Your task to perform on an android device: Open Google Image 0: 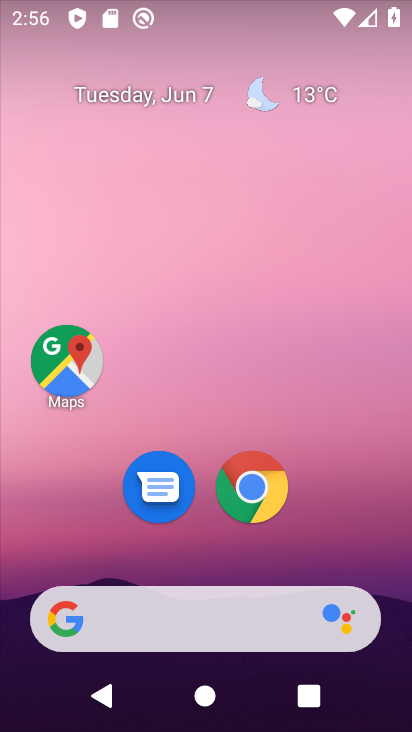
Step 0: drag from (93, 266) to (74, 122)
Your task to perform on an android device: Open Google Image 1: 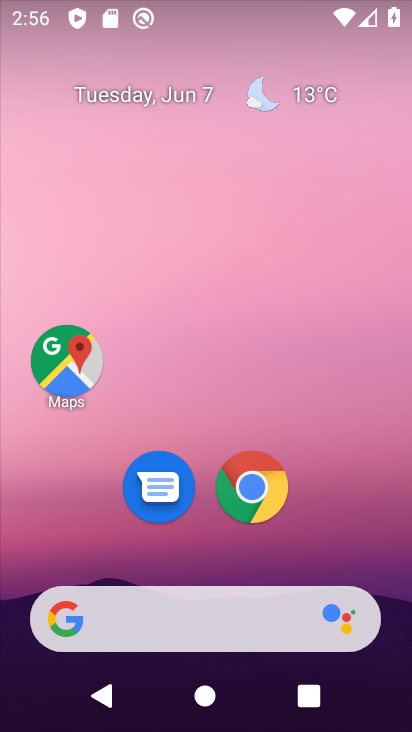
Step 1: drag from (273, 582) to (167, 92)
Your task to perform on an android device: Open Google Image 2: 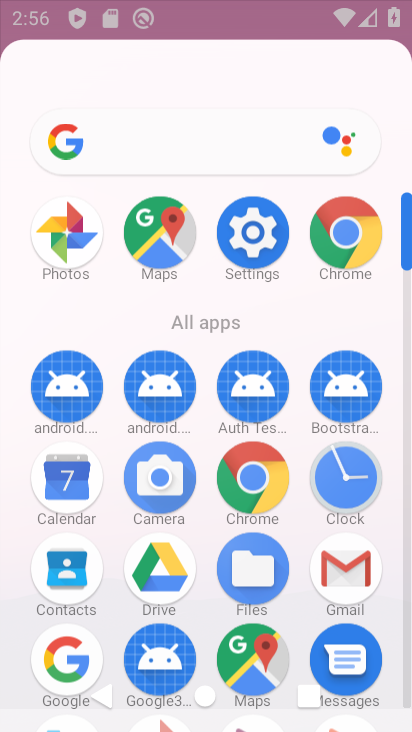
Step 2: drag from (233, 498) to (182, 135)
Your task to perform on an android device: Open Google Image 3: 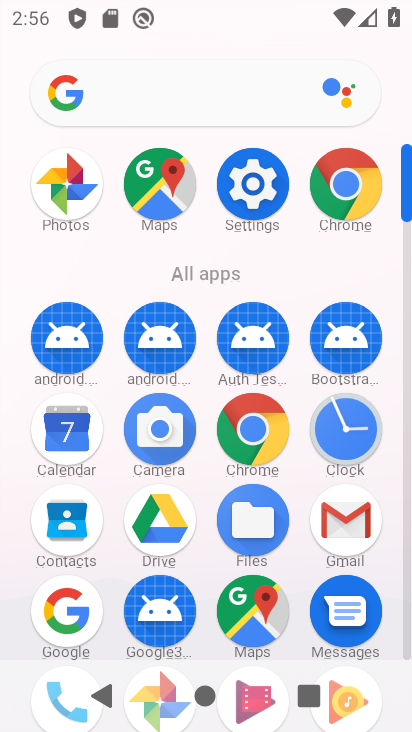
Step 3: drag from (183, 575) to (141, 162)
Your task to perform on an android device: Open Google Image 4: 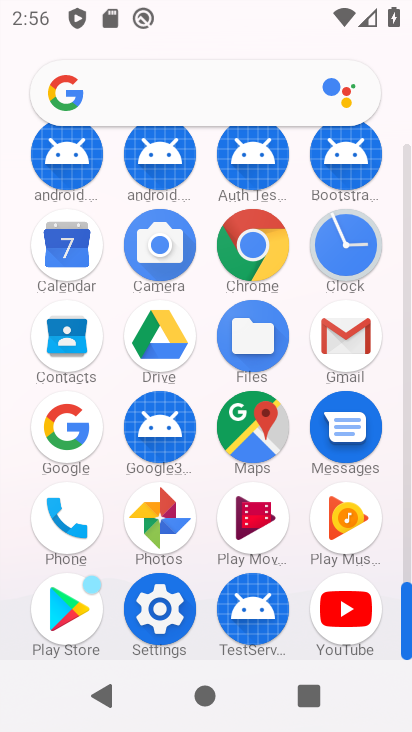
Step 4: click (50, 434)
Your task to perform on an android device: Open Google Image 5: 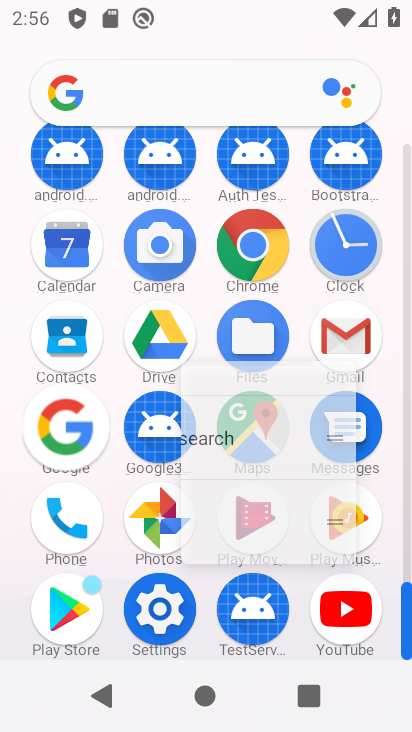
Step 5: click (52, 435)
Your task to perform on an android device: Open Google Image 6: 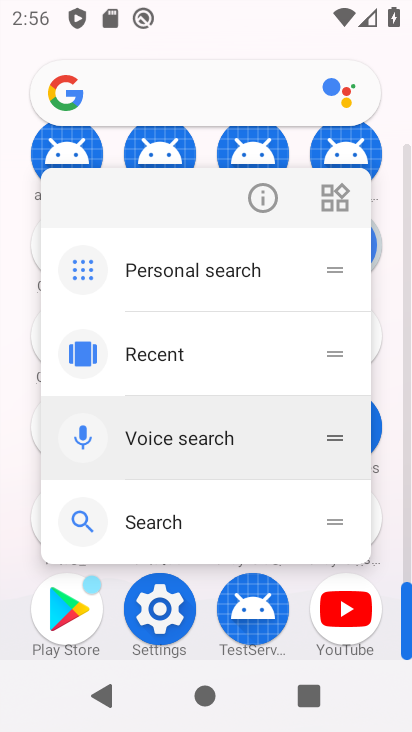
Step 6: task complete